Your task to perform on an android device: Clear the shopping cart on ebay.com. Add "alienware aurora" to the cart on ebay.com, then select checkout. Image 0: 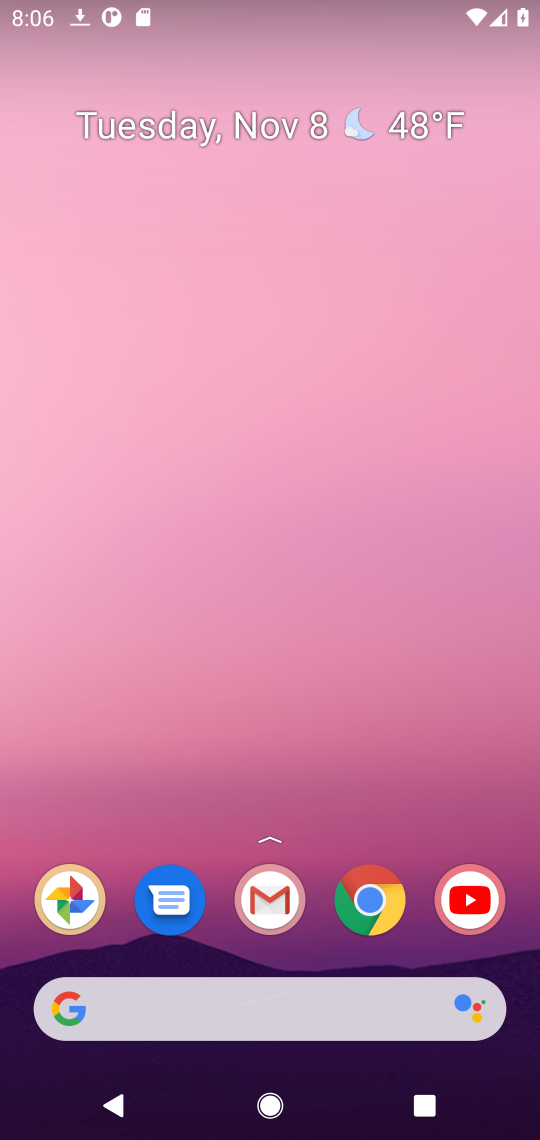
Step 0: drag from (193, 889) to (372, 442)
Your task to perform on an android device: Clear the shopping cart on ebay.com. Add "alienware aurora" to the cart on ebay.com, then select checkout. Image 1: 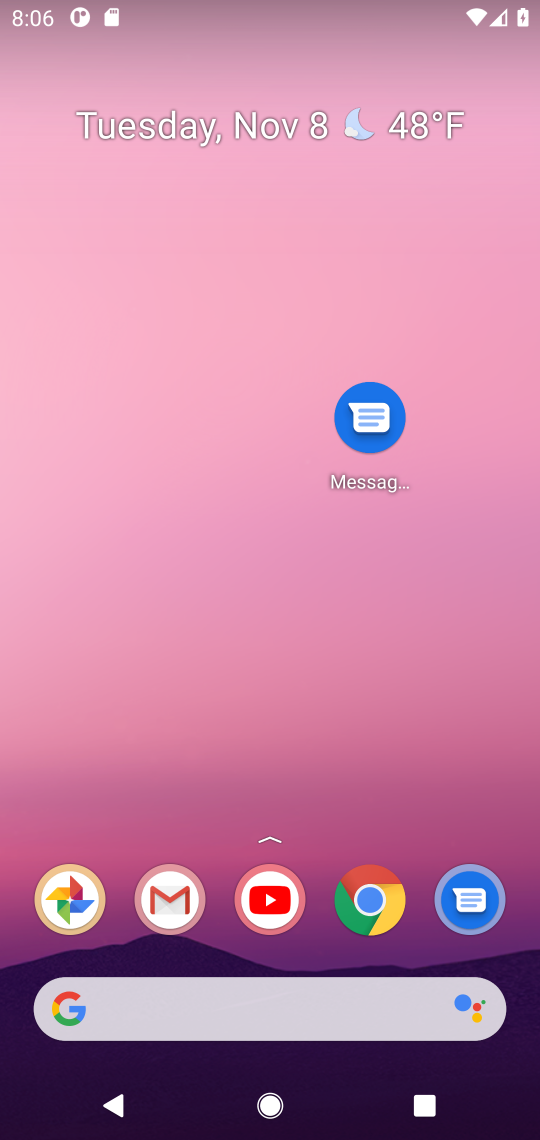
Step 1: drag from (207, 964) to (234, 184)
Your task to perform on an android device: Clear the shopping cart on ebay.com. Add "alienware aurora" to the cart on ebay.com, then select checkout. Image 2: 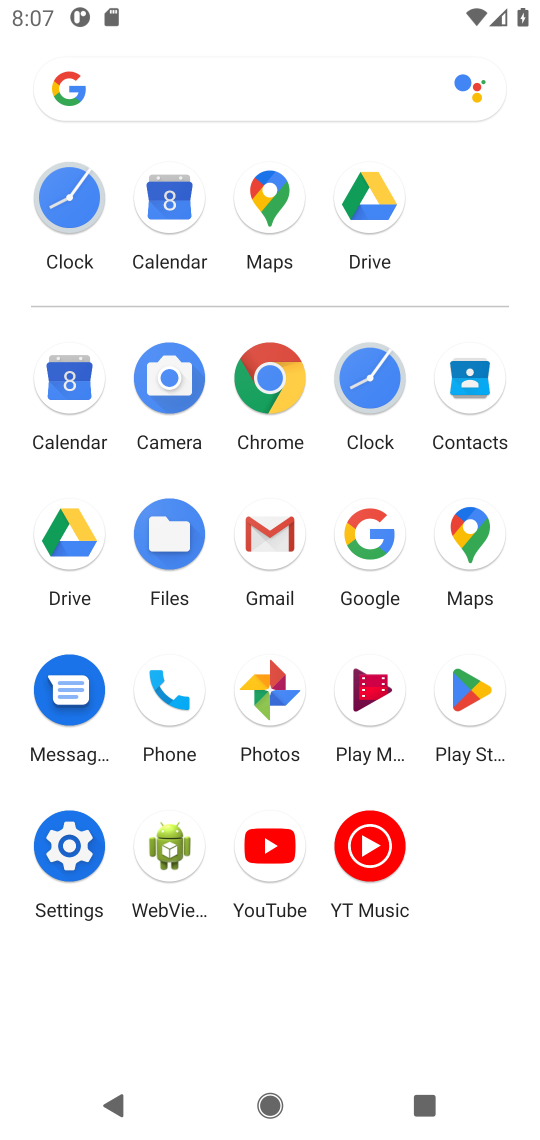
Step 2: click (363, 518)
Your task to perform on an android device: Clear the shopping cart on ebay.com. Add "alienware aurora" to the cart on ebay.com, then select checkout. Image 3: 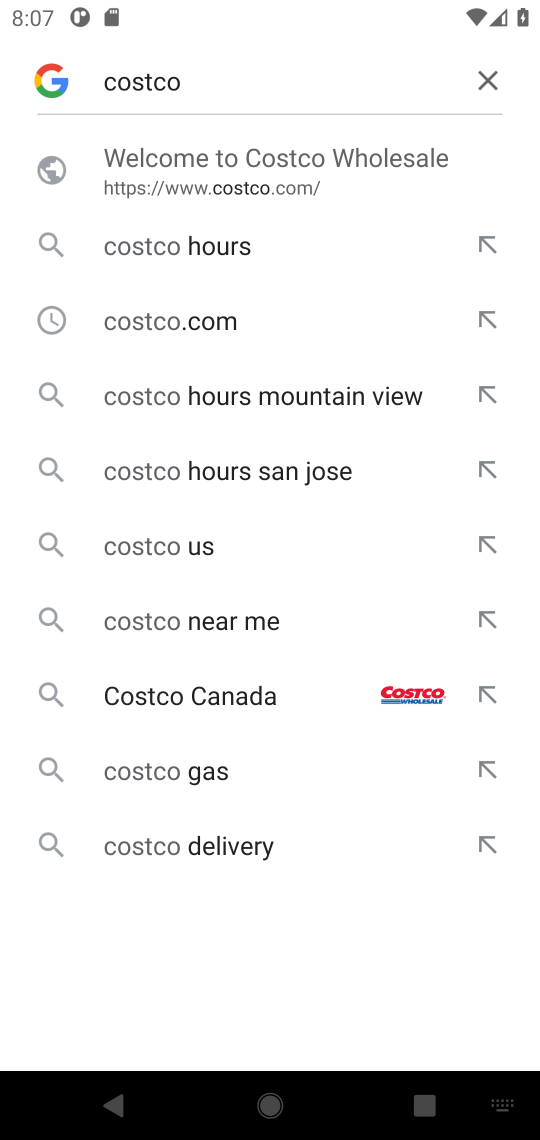
Step 3: click (489, 74)
Your task to perform on an android device: Clear the shopping cart on ebay.com. Add "alienware aurora" to the cart on ebay.com, then select checkout. Image 4: 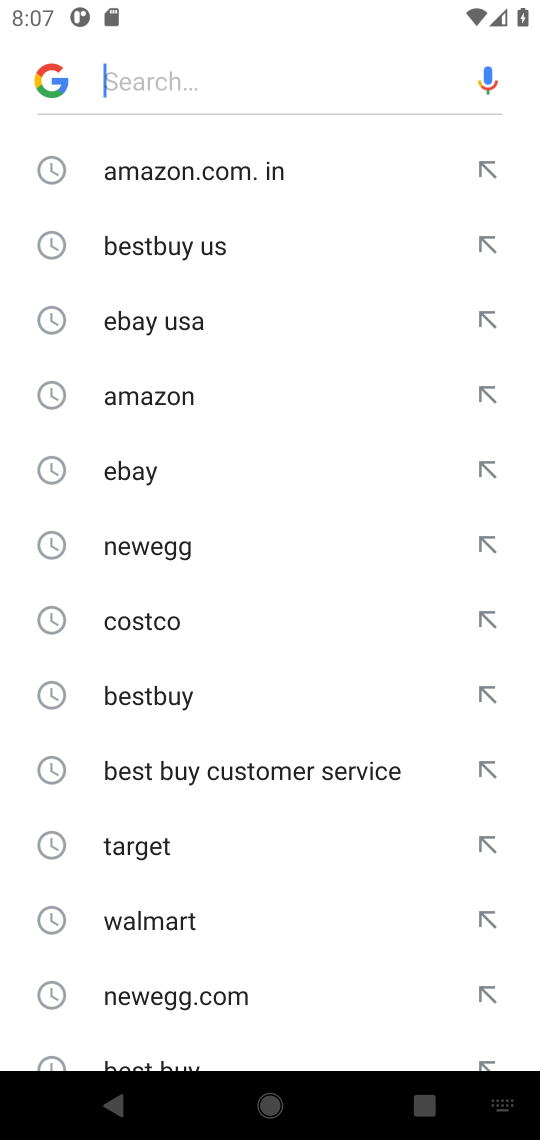
Step 4: click (147, 318)
Your task to perform on an android device: Clear the shopping cart on ebay.com. Add "alienware aurora" to the cart on ebay.com, then select checkout. Image 5: 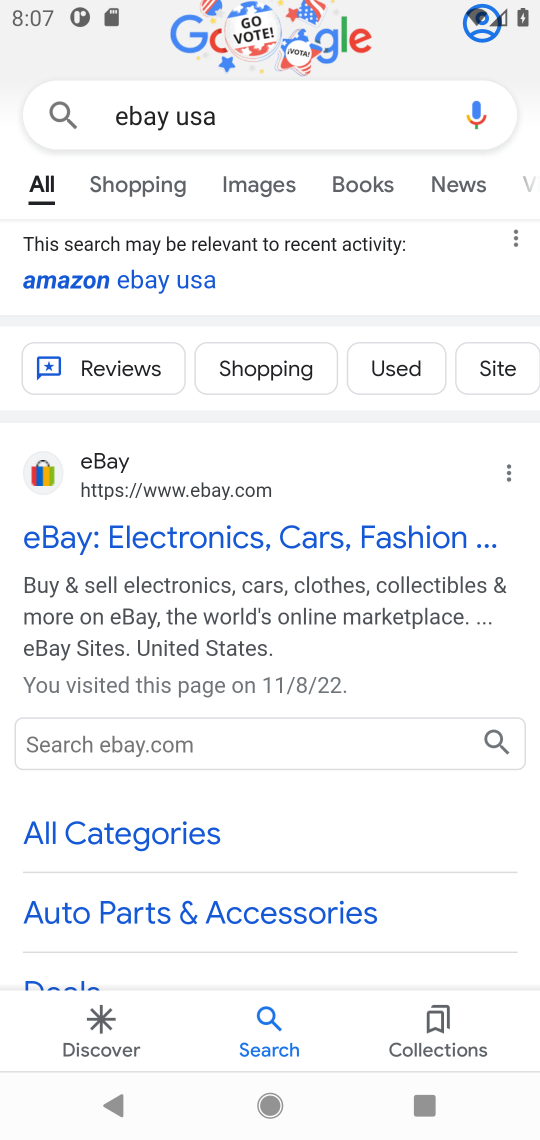
Step 5: click (43, 465)
Your task to perform on an android device: Clear the shopping cart on ebay.com. Add "alienware aurora" to the cart on ebay.com, then select checkout. Image 6: 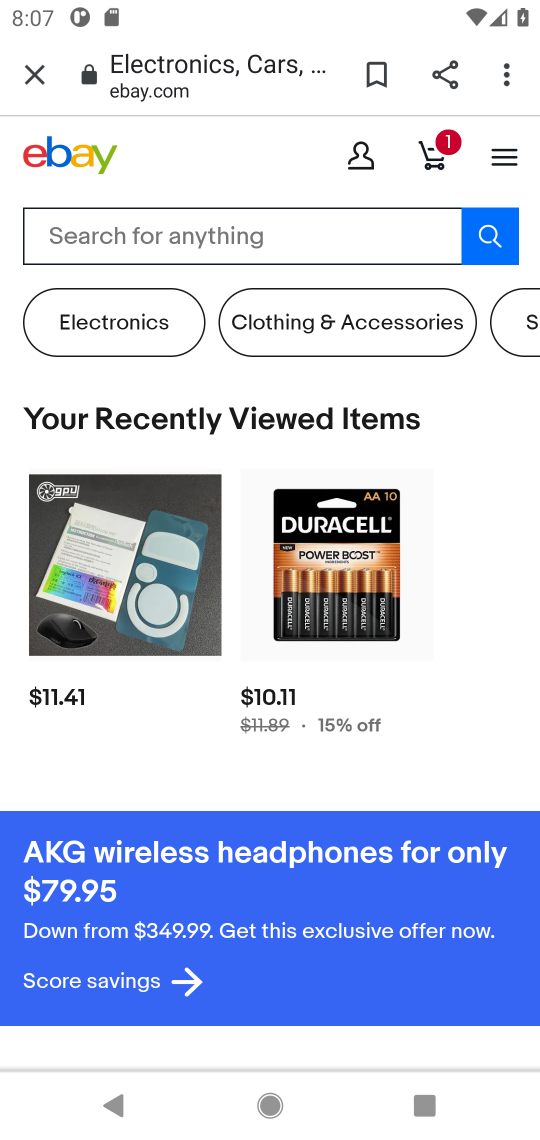
Step 6: click (300, 228)
Your task to perform on an android device: Clear the shopping cart on ebay.com. Add "alienware aurora" to the cart on ebay.com, then select checkout. Image 7: 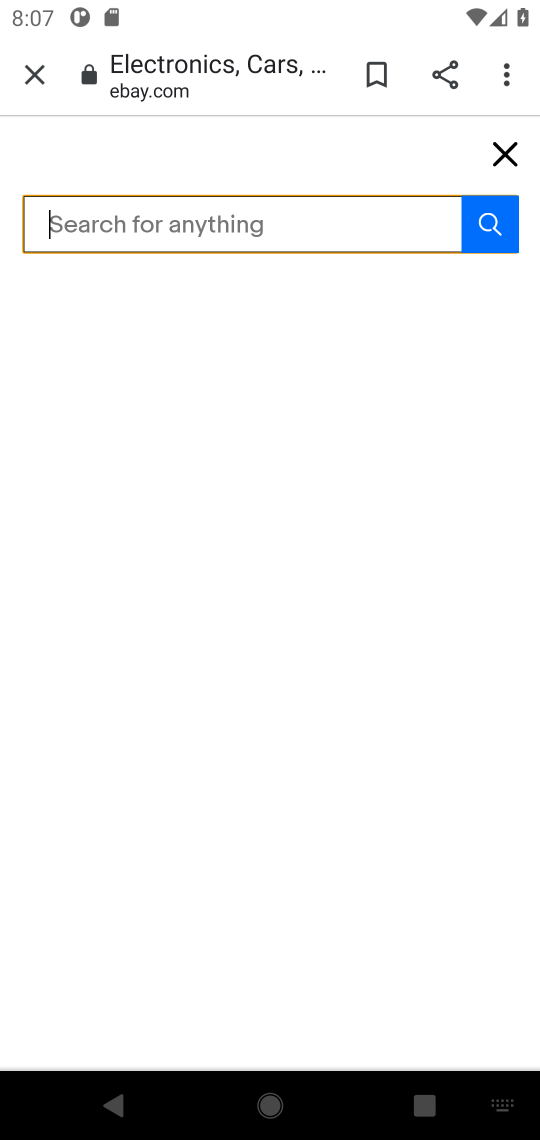
Step 7: click (309, 212)
Your task to perform on an android device: Clear the shopping cart on ebay.com. Add "alienware aurora" to the cart on ebay.com, then select checkout. Image 8: 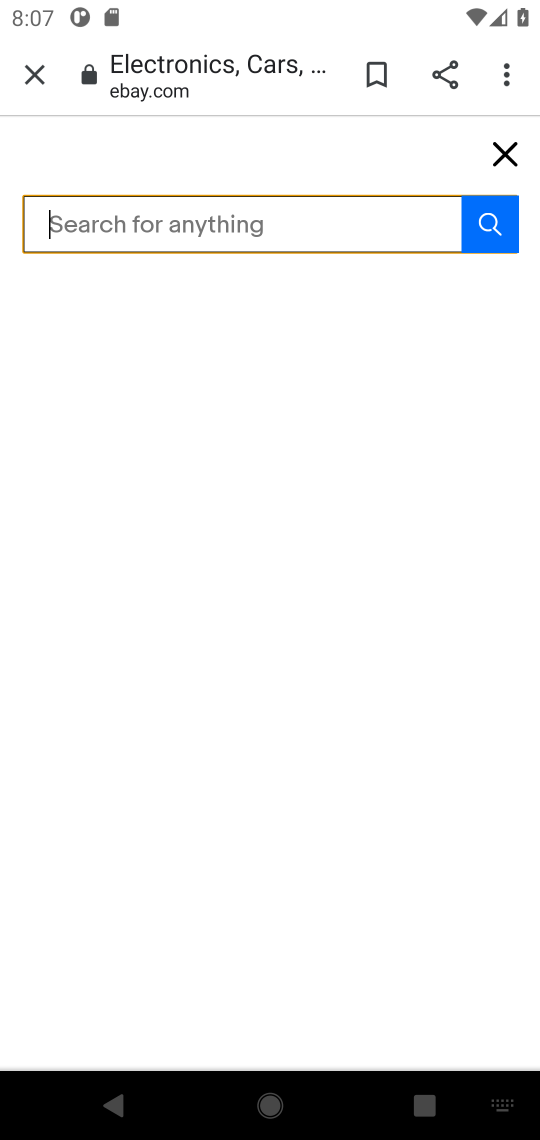
Step 8: type "alienware aurora "
Your task to perform on an android device: Clear the shopping cart on ebay.com. Add "alienware aurora" to the cart on ebay.com, then select checkout. Image 9: 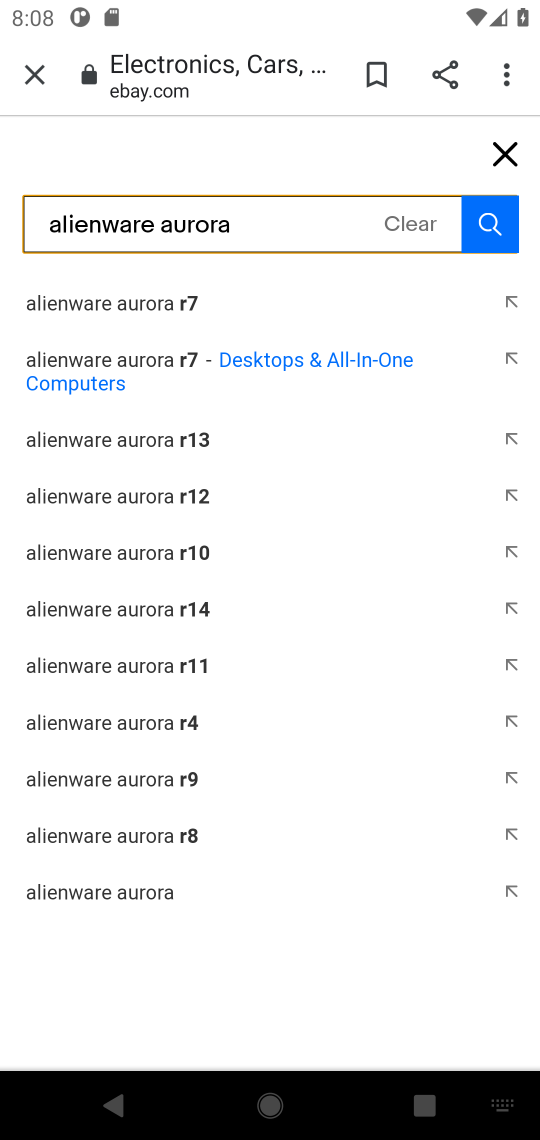
Step 9: click (167, 297)
Your task to perform on an android device: Clear the shopping cart on ebay.com. Add "alienware aurora" to the cart on ebay.com, then select checkout. Image 10: 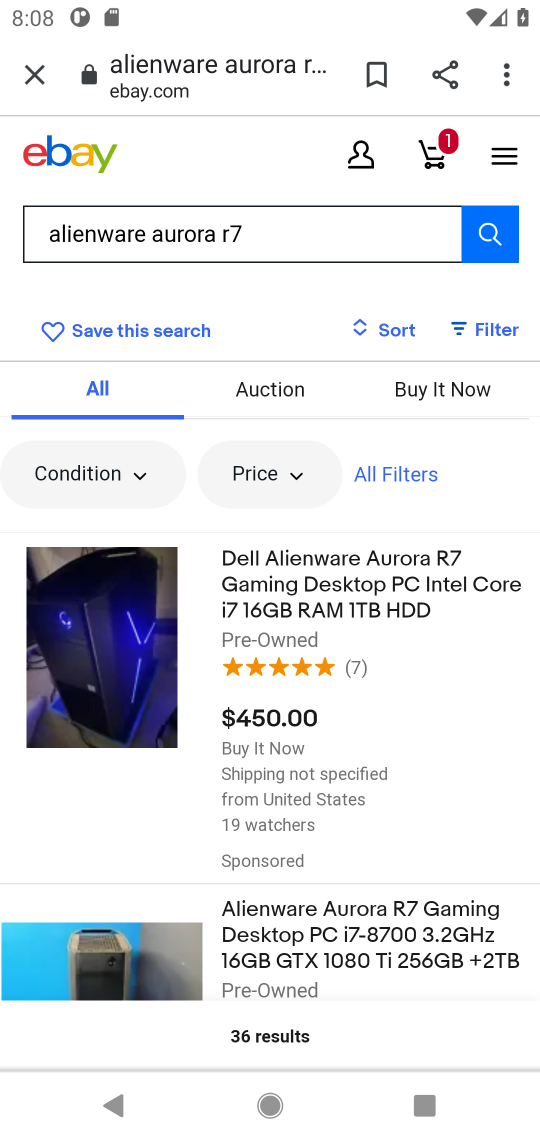
Step 10: click (311, 606)
Your task to perform on an android device: Clear the shopping cart on ebay.com. Add "alienware aurora" to the cart on ebay.com, then select checkout. Image 11: 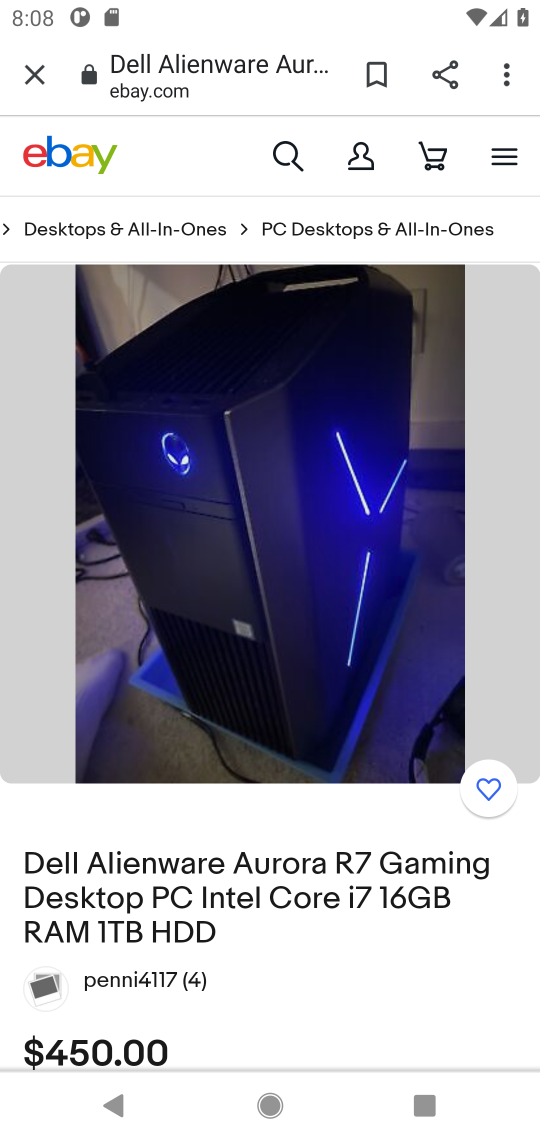
Step 11: drag from (329, 950) to (378, 313)
Your task to perform on an android device: Clear the shopping cart on ebay.com. Add "alienware aurora" to the cart on ebay.com, then select checkout. Image 12: 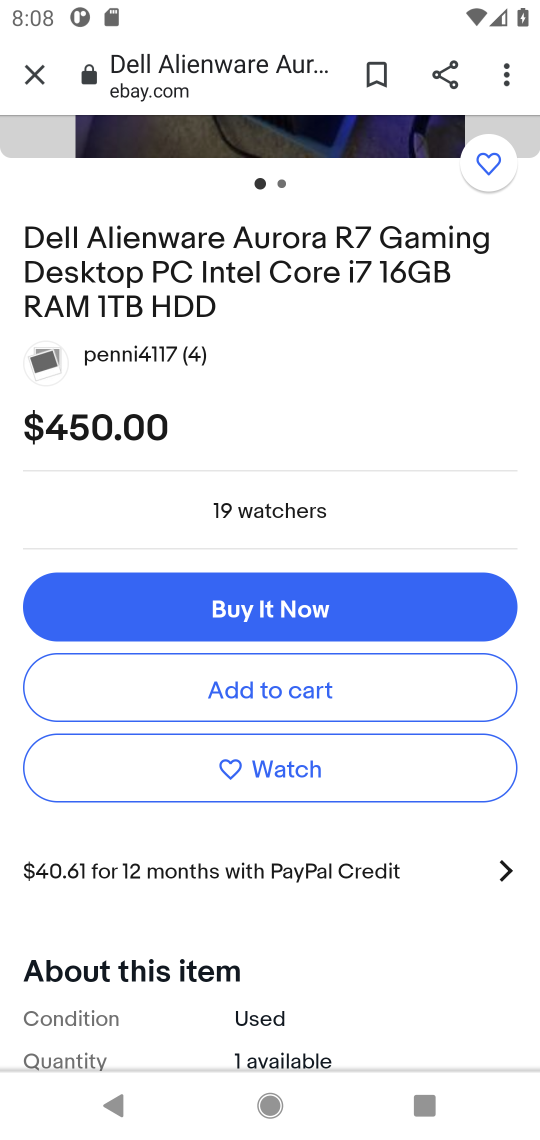
Step 12: drag from (285, 936) to (310, 698)
Your task to perform on an android device: Clear the shopping cart on ebay.com. Add "alienware aurora" to the cart on ebay.com, then select checkout. Image 13: 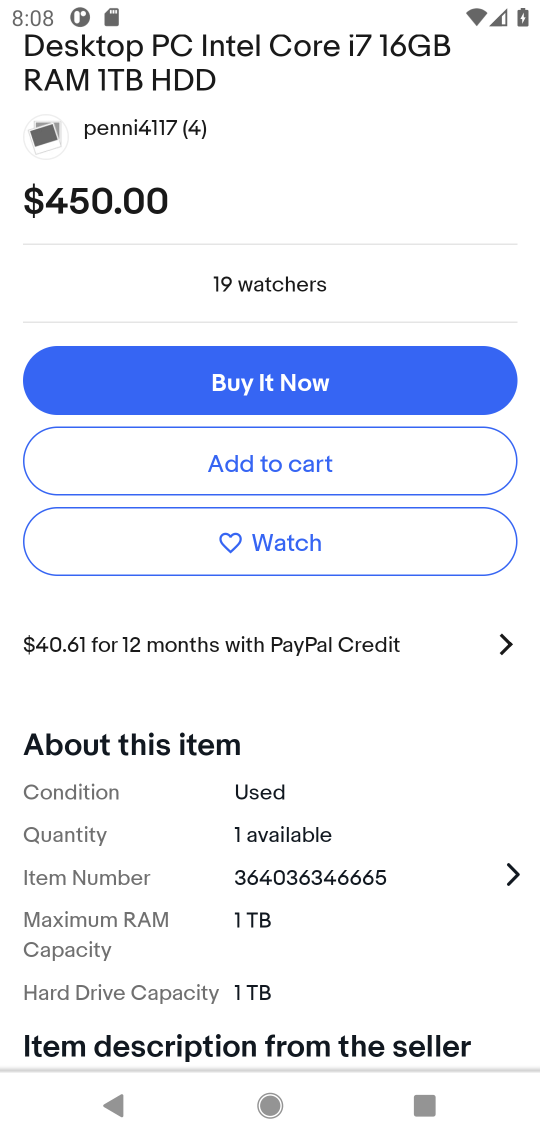
Step 13: click (297, 454)
Your task to perform on an android device: Clear the shopping cart on ebay.com. Add "alienware aurora" to the cart on ebay.com, then select checkout. Image 14: 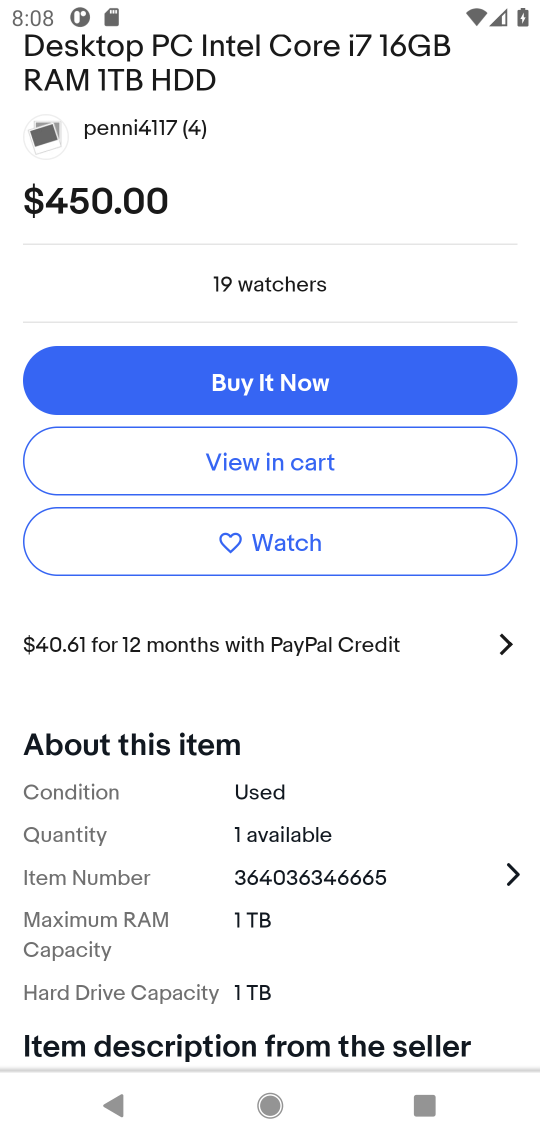
Step 14: task complete